Your task to perform on an android device: Open the web browser Image 0: 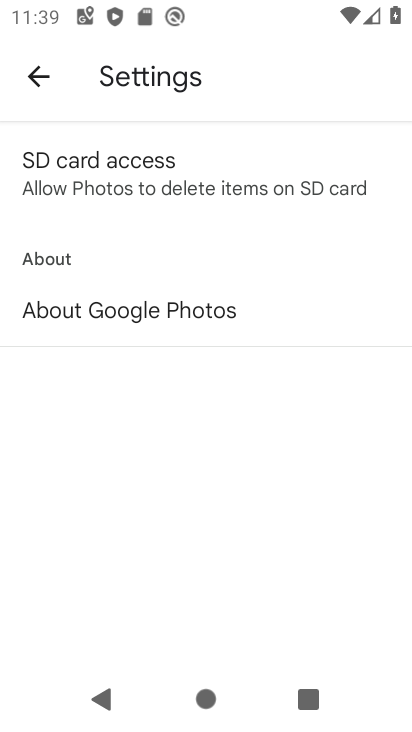
Step 0: press home button
Your task to perform on an android device: Open the web browser Image 1: 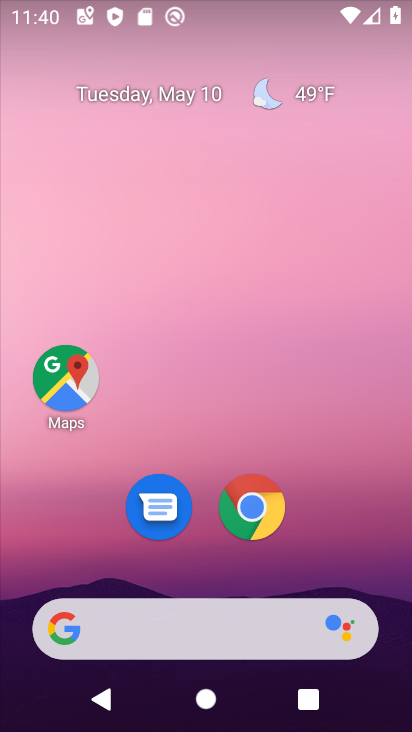
Step 1: drag from (268, 593) to (290, 51)
Your task to perform on an android device: Open the web browser Image 2: 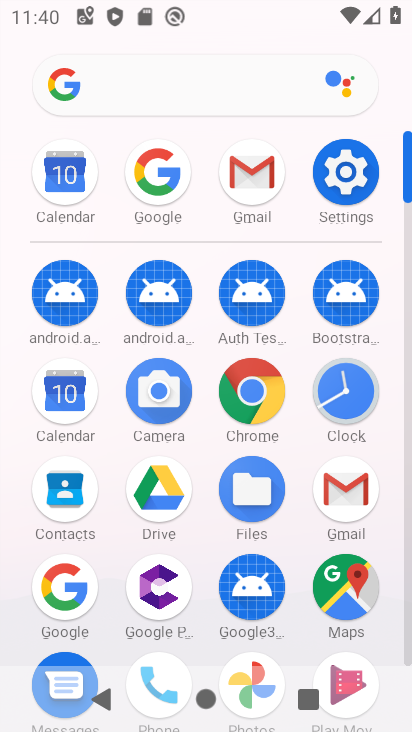
Step 2: click (70, 580)
Your task to perform on an android device: Open the web browser Image 3: 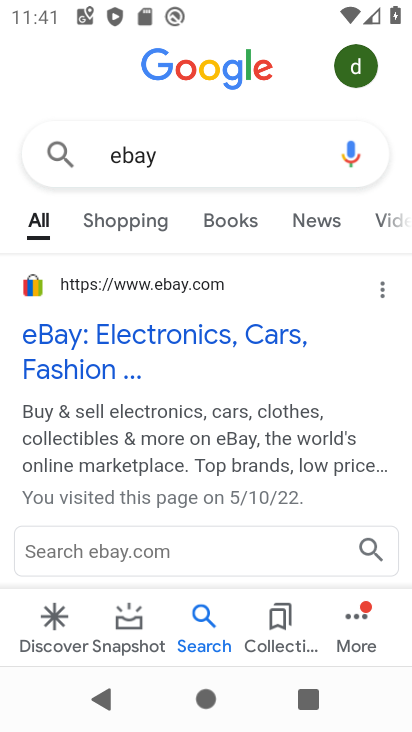
Step 3: task complete